Your task to perform on an android device: turn off data saver in the chrome app Image 0: 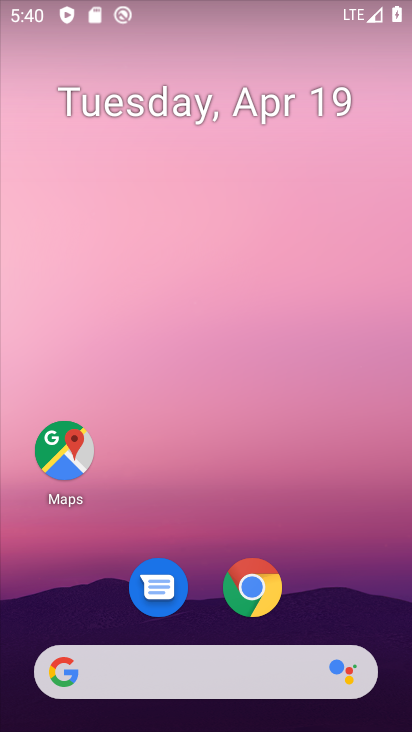
Step 0: click (263, 609)
Your task to perform on an android device: turn off data saver in the chrome app Image 1: 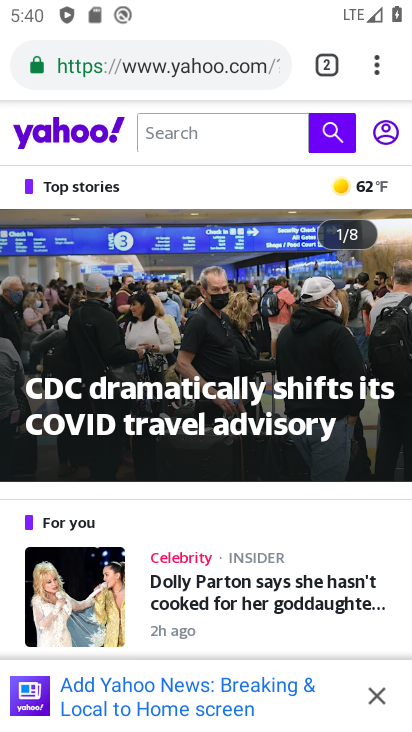
Step 1: click (379, 55)
Your task to perform on an android device: turn off data saver in the chrome app Image 2: 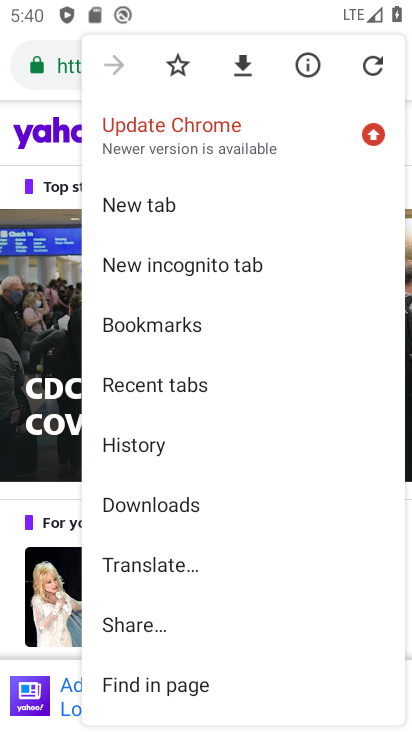
Step 2: drag from (171, 644) to (130, 283)
Your task to perform on an android device: turn off data saver in the chrome app Image 3: 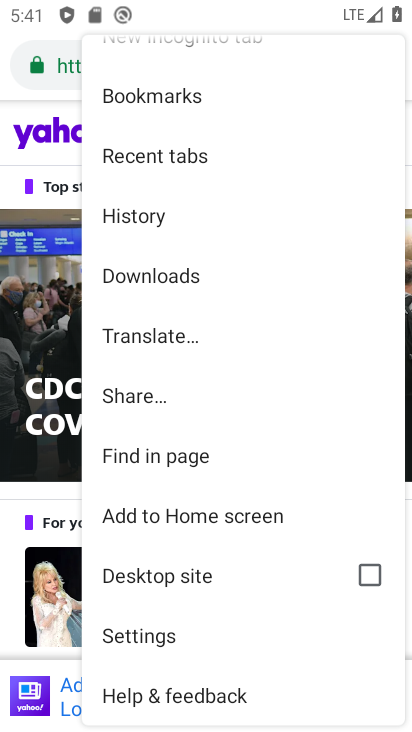
Step 3: click (188, 623)
Your task to perform on an android device: turn off data saver in the chrome app Image 4: 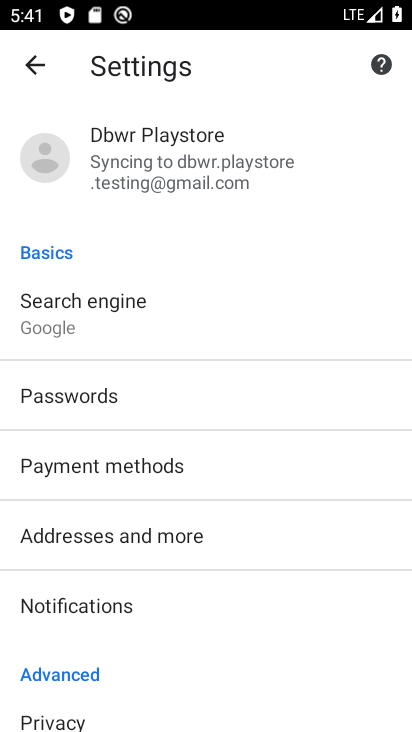
Step 4: drag from (140, 676) to (110, 339)
Your task to perform on an android device: turn off data saver in the chrome app Image 5: 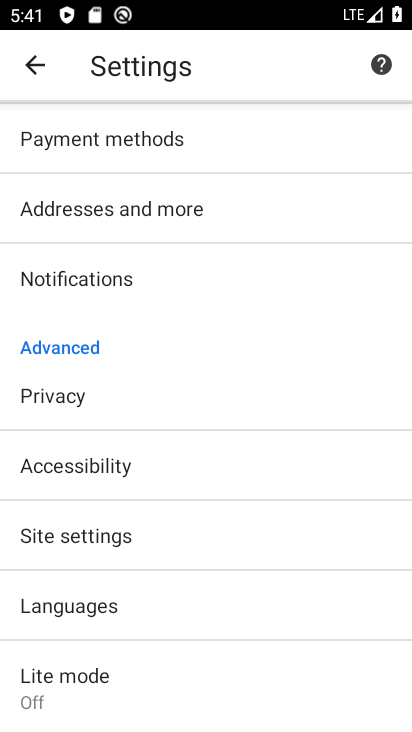
Step 5: click (92, 691)
Your task to perform on an android device: turn off data saver in the chrome app Image 6: 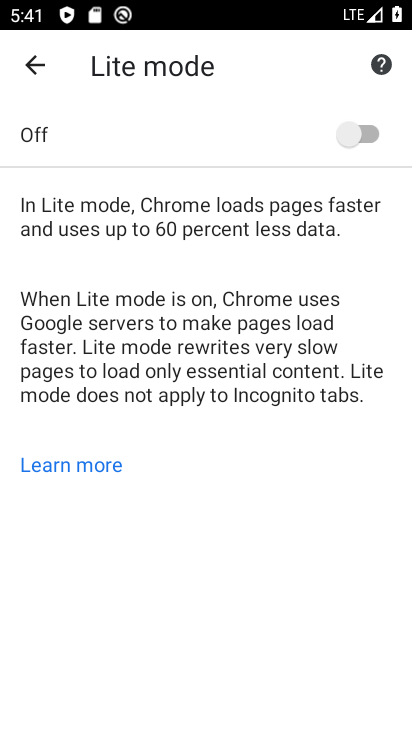
Step 6: task complete